Your task to perform on an android device: toggle javascript in the chrome app Image 0: 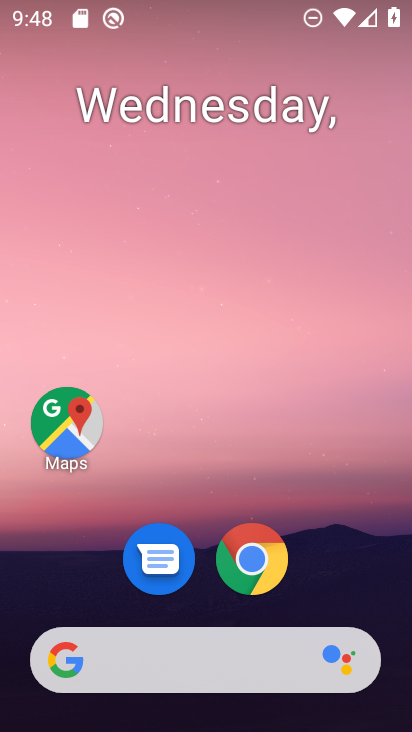
Step 0: drag from (352, 577) to (327, 167)
Your task to perform on an android device: toggle javascript in the chrome app Image 1: 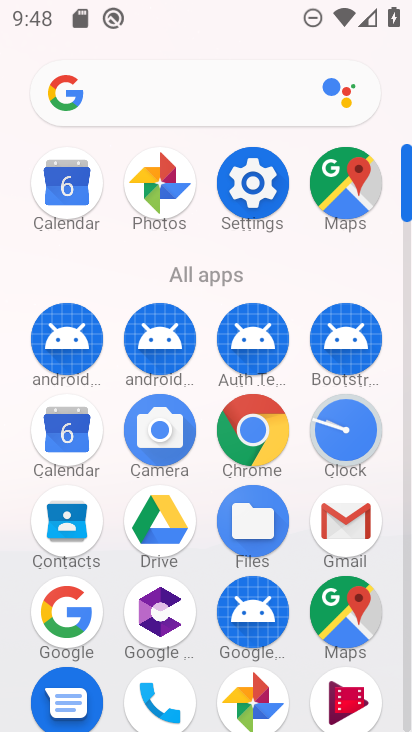
Step 1: click (262, 195)
Your task to perform on an android device: toggle javascript in the chrome app Image 2: 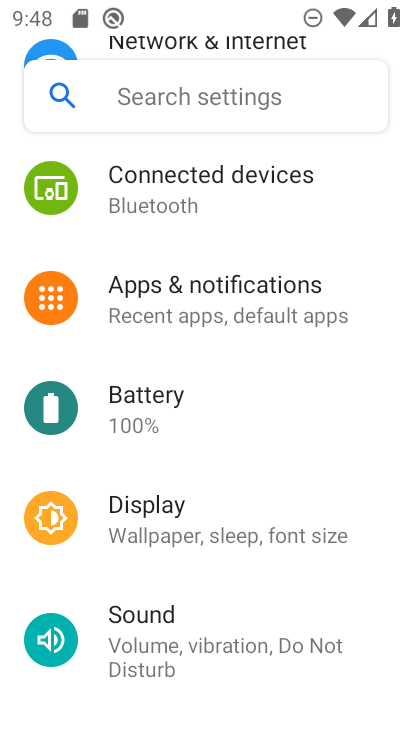
Step 2: press back button
Your task to perform on an android device: toggle javascript in the chrome app Image 3: 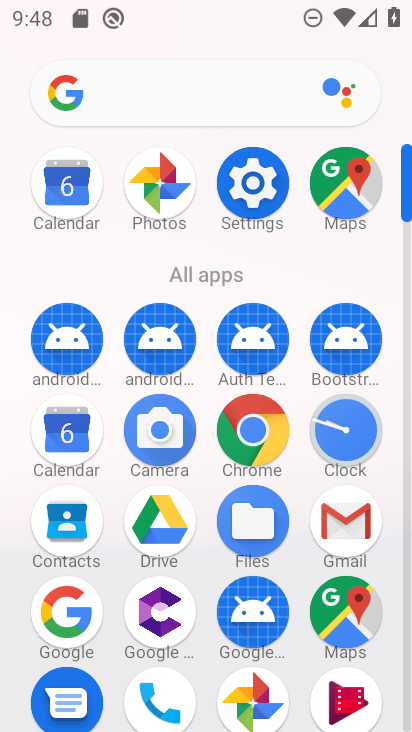
Step 3: click (268, 440)
Your task to perform on an android device: toggle javascript in the chrome app Image 4: 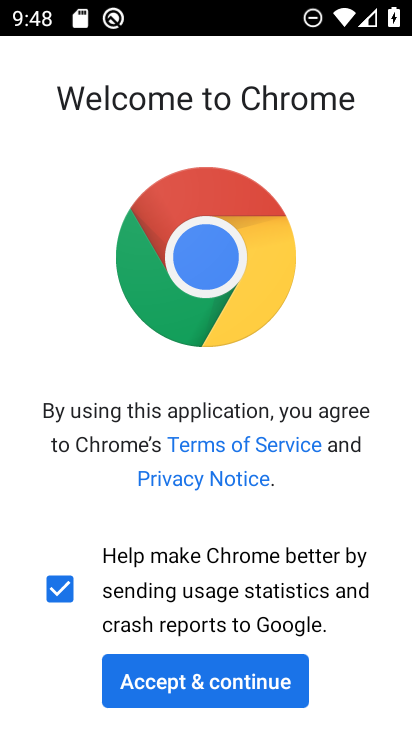
Step 4: click (223, 680)
Your task to perform on an android device: toggle javascript in the chrome app Image 5: 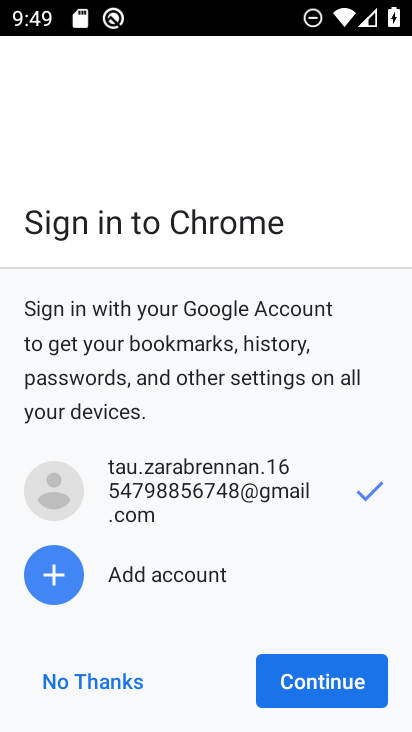
Step 5: click (283, 683)
Your task to perform on an android device: toggle javascript in the chrome app Image 6: 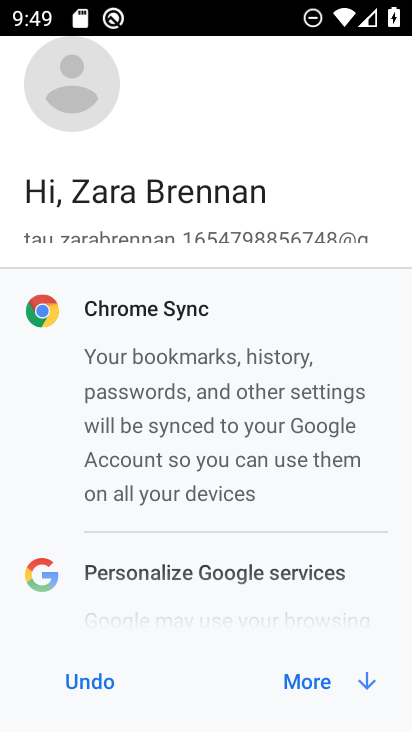
Step 6: click (301, 680)
Your task to perform on an android device: toggle javascript in the chrome app Image 7: 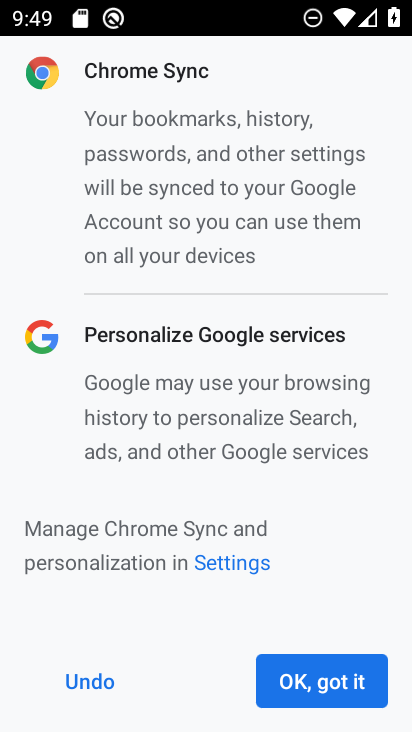
Step 7: click (319, 680)
Your task to perform on an android device: toggle javascript in the chrome app Image 8: 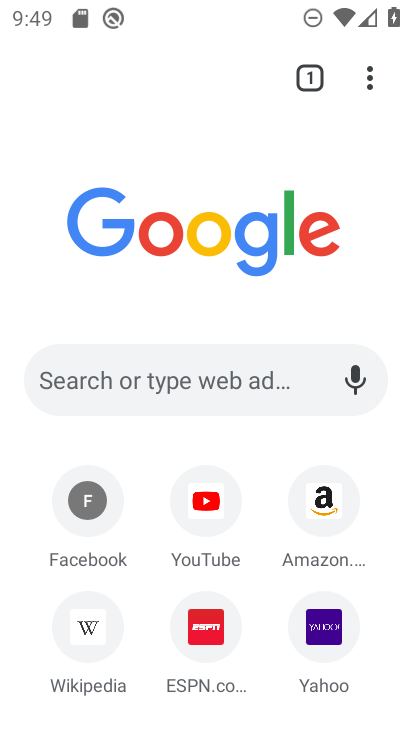
Step 8: click (366, 85)
Your task to perform on an android device: toggle javascript in the chrome app Image 9: 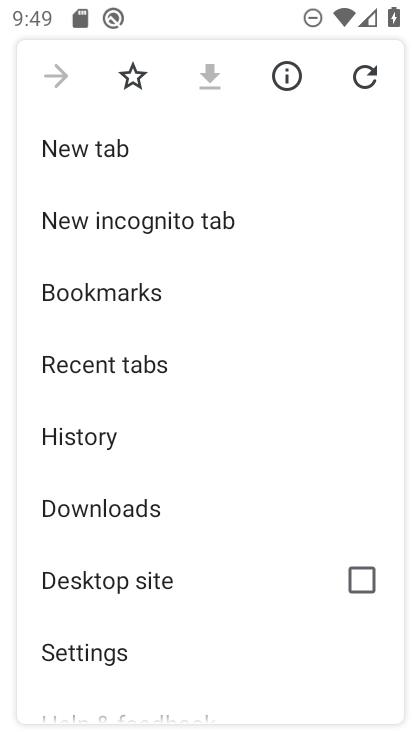
Step 9: drag from (308, 374) to (307, 292)
Your task to perform on an android device: toggle javascript in the chrome app Image 10: 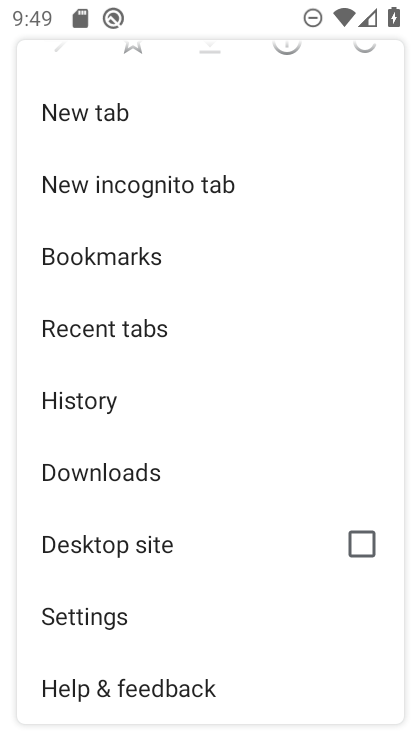
Step 10: drag from (278, 386) to (298, 276)
Your task to perform on an android device: toggle javascript in the chrome app Image 11: 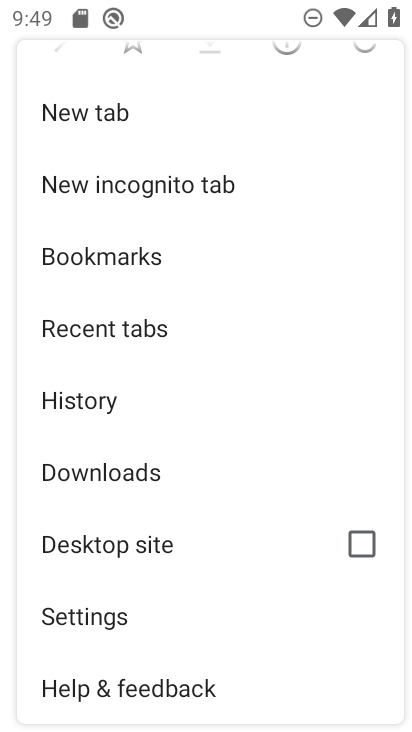
Step 11: click (175, 619)
Your task to perform on an android device: toggle javascript in the chrome app Image 12: 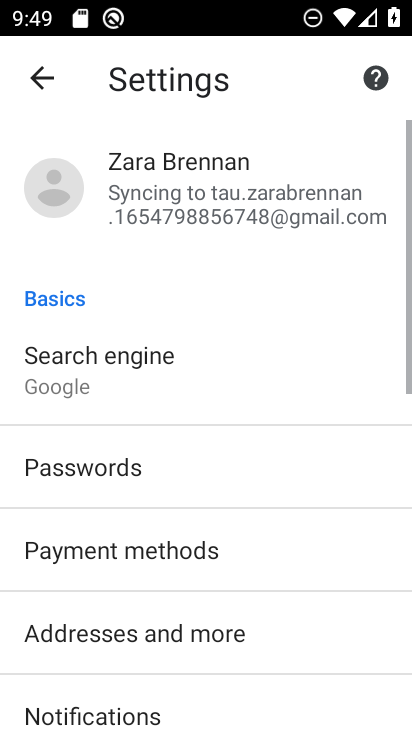
Step 12: drag from (271, 545) to (287, 467)
Your task to perform on an android device: toggle javascript in the chrome app Image 13: 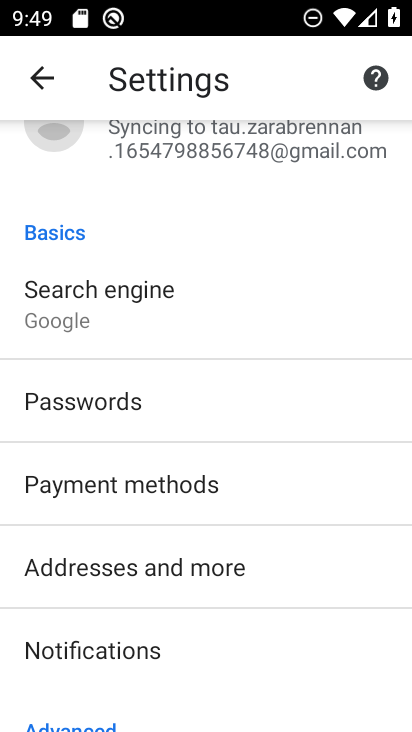
Step 13: drag from (299, 570) to (315, 500)
Your task to perform on an android device: toggle javascript in the chrome app Image 14: 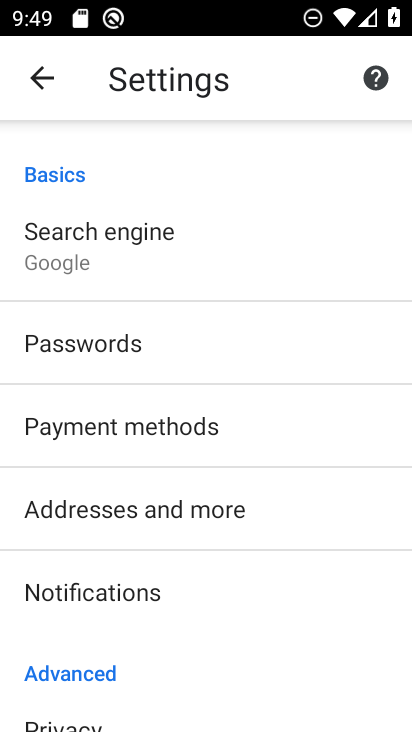
Step 14: drag from (319, 566) to (328, 490)
Your task to perform on an android device: toggle javascript in the chrome app Image 15: 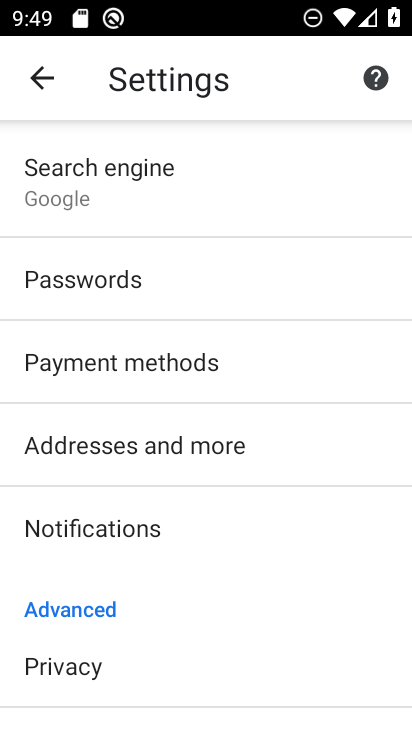
Step 15: drag from (323, 589) to (328, 504)
Your task to perform on an android device: toggle javascript in the chrome app Image 16: 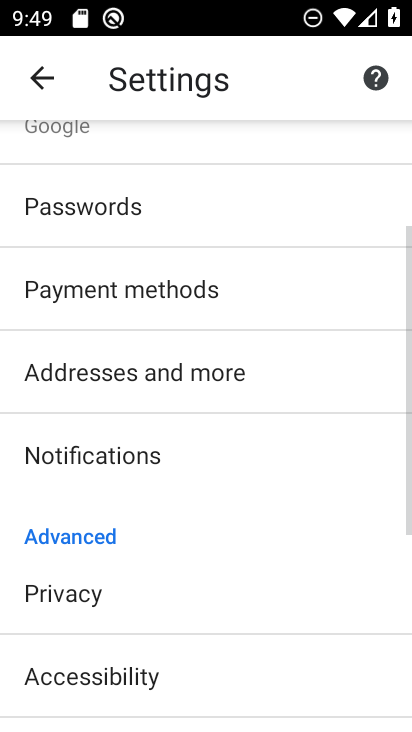
Step 16: drag from (329, 590) to (326, 508)
Your task to perform on an android device: toggle javascript in the chrome app Image 17: 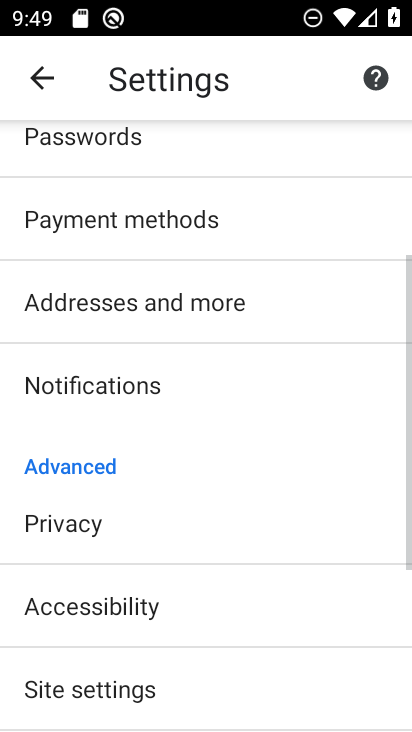
Step 17: drag from (321, 615) to (323, 538)
Your task to perform on an android device: toggle javascript in the chrome app Image 18: 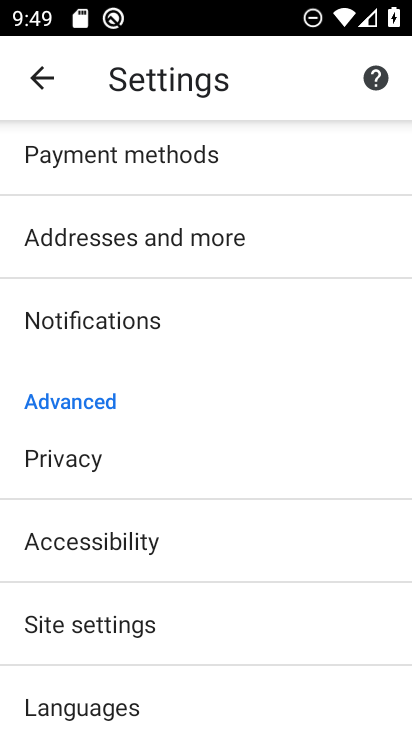
Step 18: drag from (330, 620) to (332, 547)
Your task to perform on an android device: toggle javascript in the chrome app Image 19: 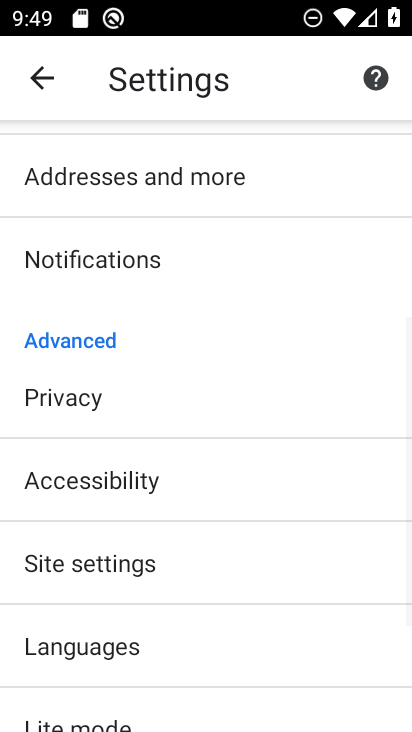
Step 19: drag from (327, 644) to (338, 479)
Your task to perform on an android device: toggle javascript in the chrome app Image 20: 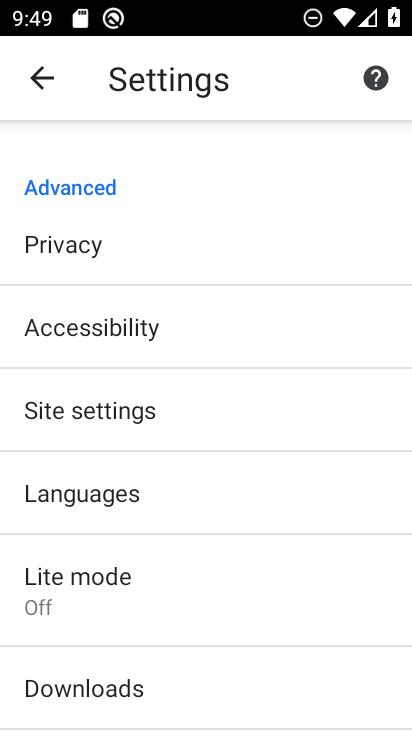
Step 20: drag from (322, 606) to (319, 471)
Your task to perform on an android device: toggle javascript in the chrome app Image 21: 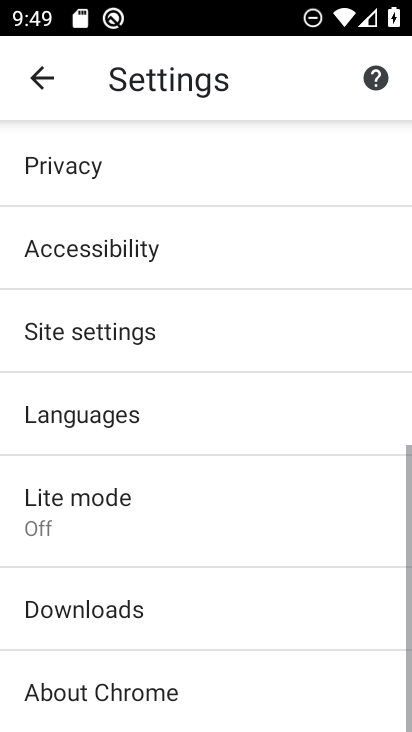
Step 21: click (258, 319)
Your task to perform on an android device: toggle javascript in the chrome app Image 22: 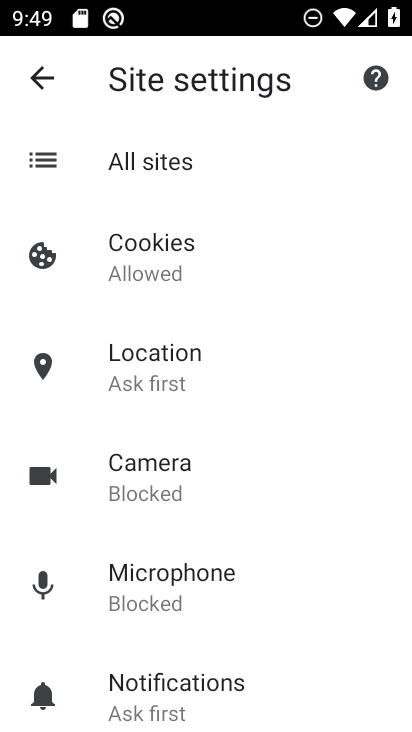
Step 22: drag from (303, 504) to (318, 444)
Your task to perform on an android device: toggle javascript in the chrome app Image 23: 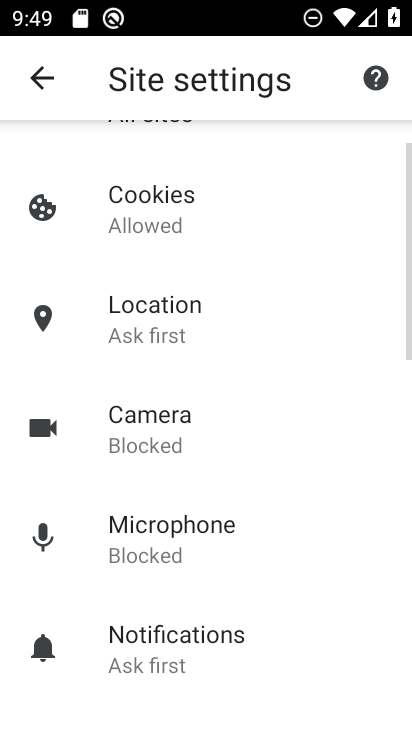
Step 23: drag from (323, 498) to (326, 394)
Your task to perform on an android device: toggle javascript in the chrome app Image 24: 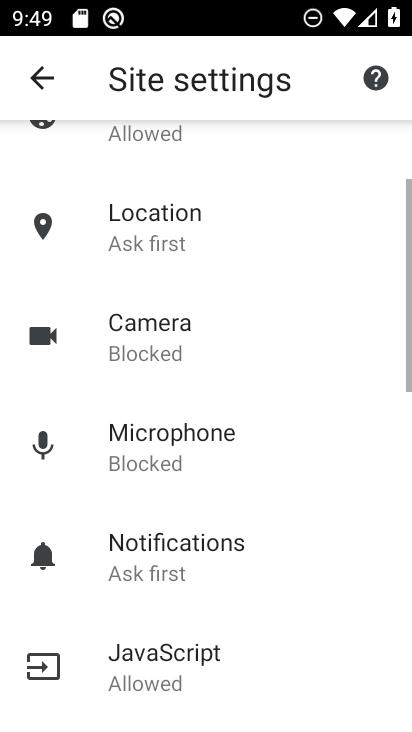
Step 24: drag from (314, 515) to (320, 402)
Your task to perform on an android device: toggle javascript in the chrome app Image 25: 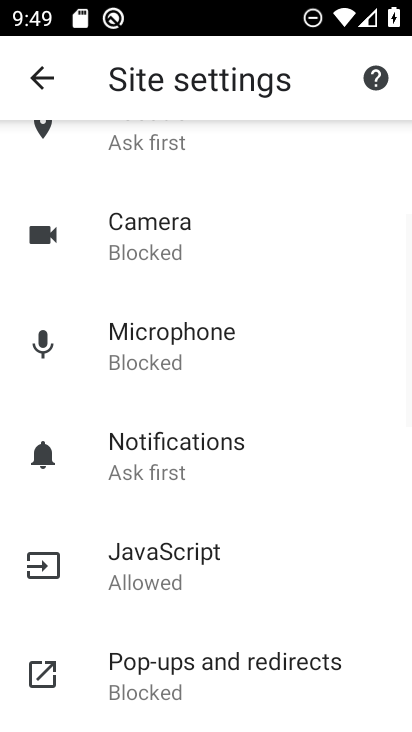
Step 25: drag from (327, 528) to (344, 426)
Your task to perform on an android device: toggle javascript in the chrome app Image 26: 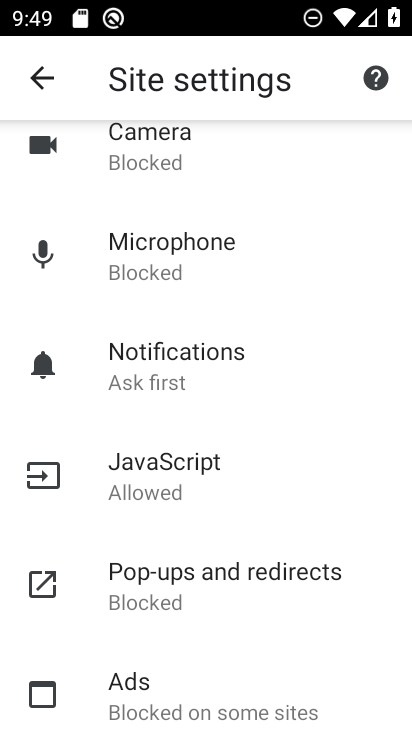
Step 26: click (222, 466)
Your task to perform on an android device: toggle javascript in the chrome app Image 27: 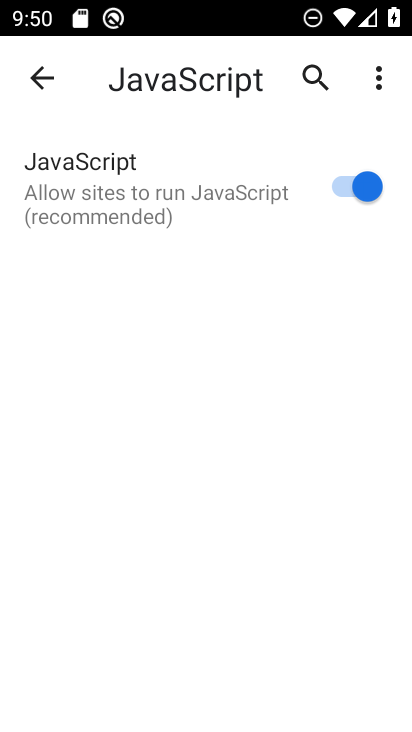
Step 27: click (369, 188)
Your task to perform on an android device: toggle javascript in the chrome app Image 28: 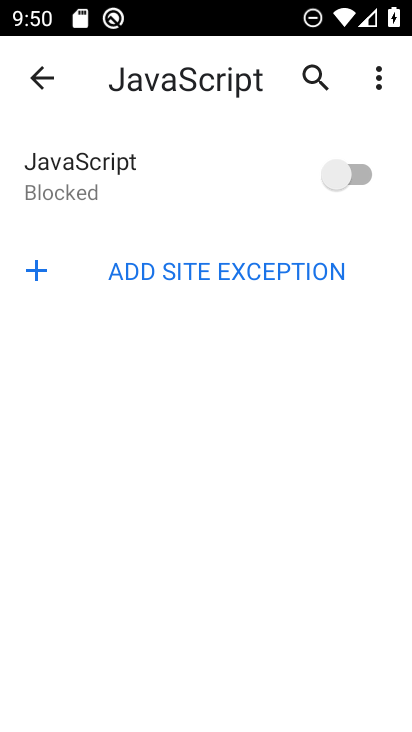
Step 28: task complete